Your task to perform on an android device: Search for Italian restaurants on Maps Image 0: 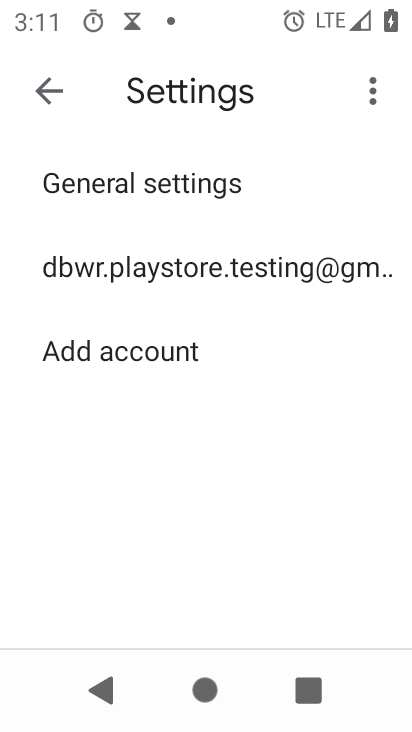
Step 0: press home button
Your task to perform on an android device: Search for Italian restaurants on Maps Image 1: 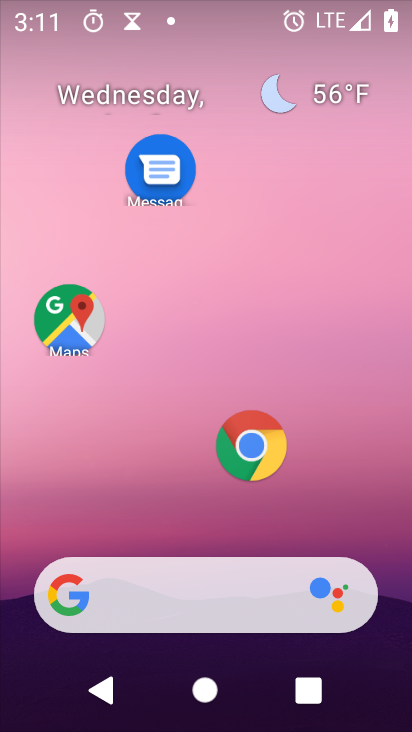
Step 1: click (63, 310)
Your task to perform on an android device: Search for Italian restaurants on Maps Image 2: 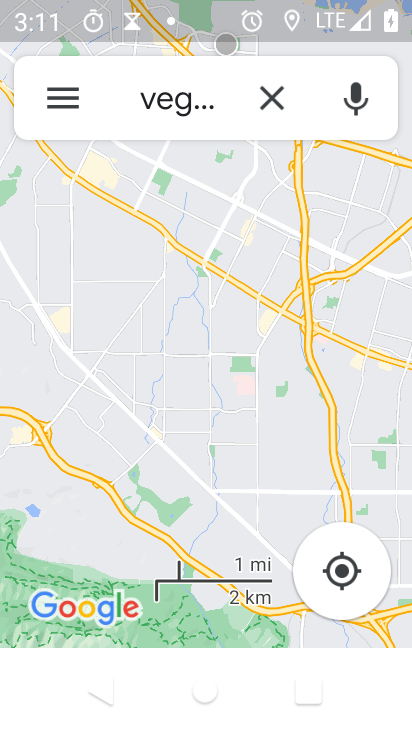
Step 2: click (271, 95)
Your task to perform on an android device: Search for Italian restaurants on Maps Image 3: 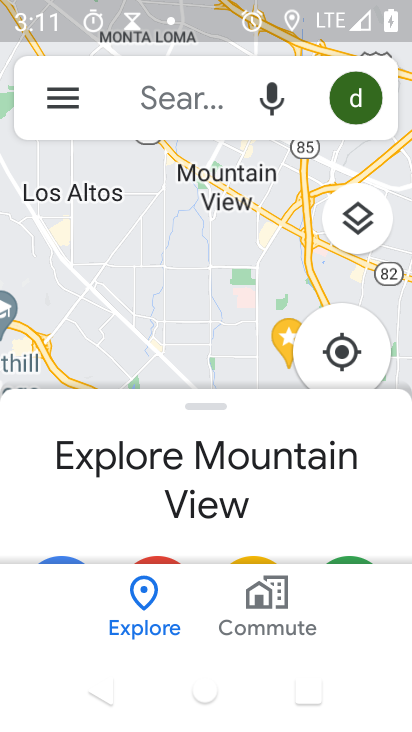
Step 3: click (158, 86)
Your task to perform on an android device: Search for Italian restaurants on Maps Image 4: 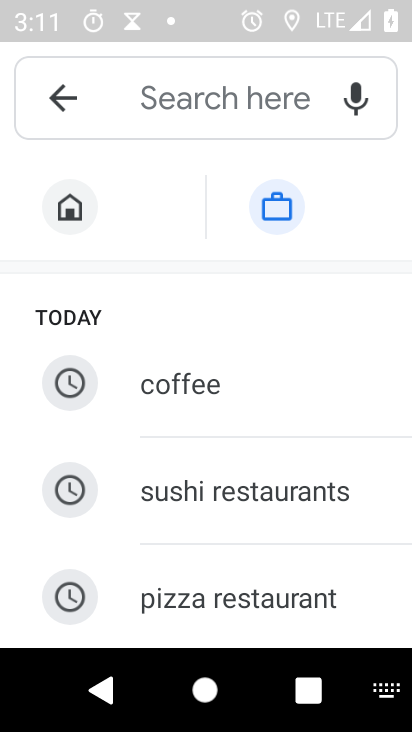
Step 4: drag from (67, 425) to (216, 142)
Your task to perform on an android device: Search for Italian restaurants on Maps Image 5: 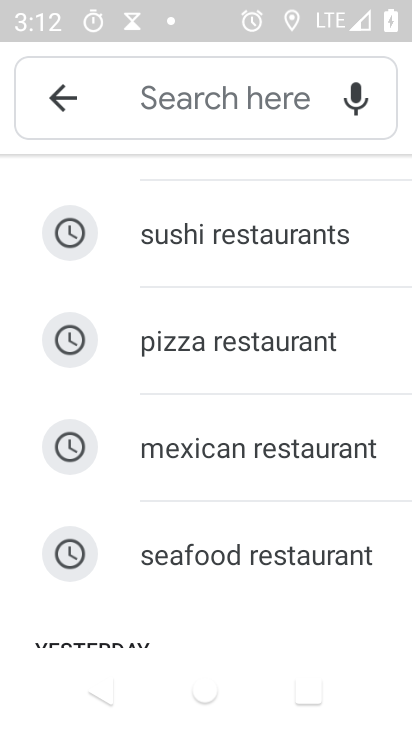
Step 5: click (187, 102)
Your task to perform on an android device: Search for Italian restaurants on Maps Image 6: 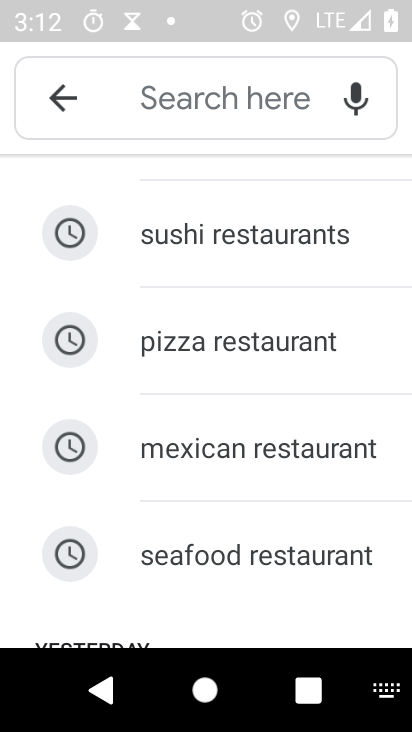
Step 6: type "Italian restaurants"
Your task to perform on an android device: Search for Italian restaurants on Maps Image 7: 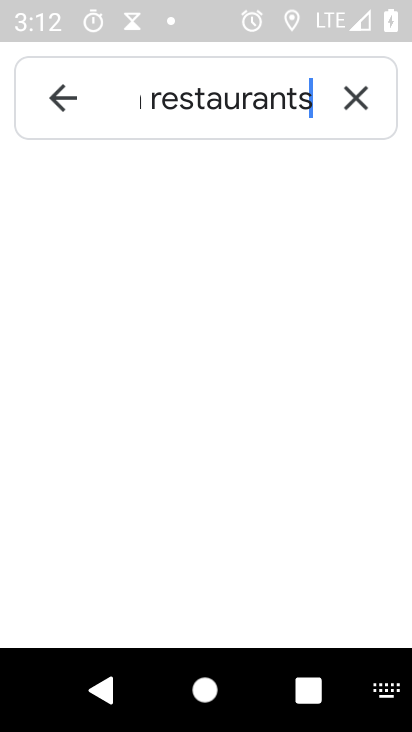
Step 7: type ""
Your task to perform on an android device: Search for Italian restaurants on Maps Image 8: 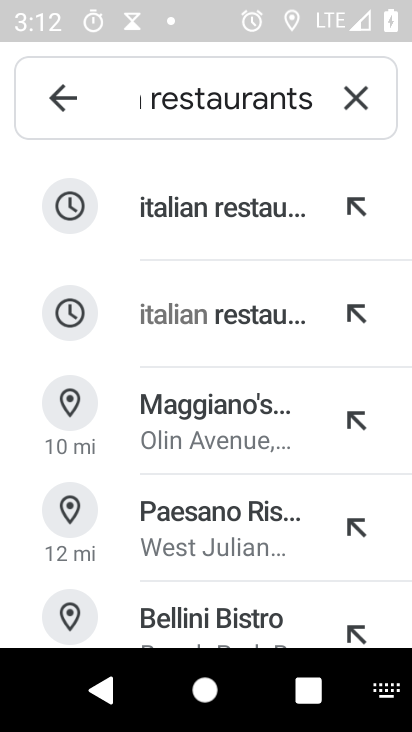
Step 8: click (250, 213)
Your task to perform on an android device: Search for Italian restaurants on Maps Image 9: 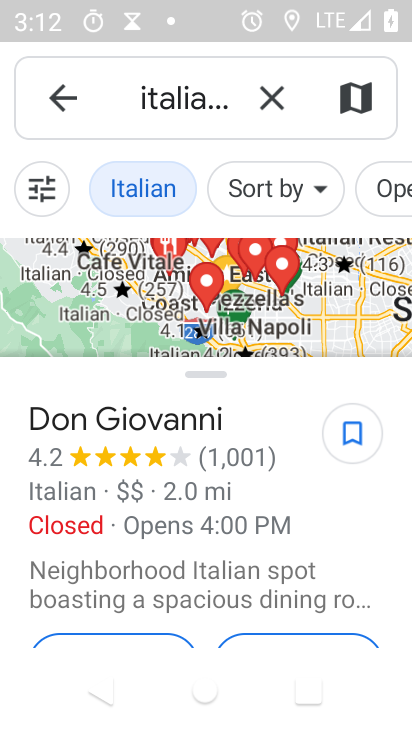
Step 9: task complete